Your task to perform on an android device: find which apps use the phone's location Image 0: 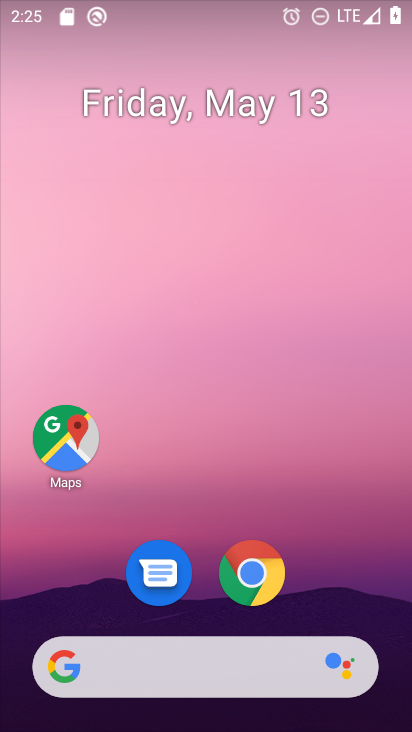
Step 0: drag from (178, 722) to (207, 16)
Your task to perform on an android device: find which apps use the phone's location Image 1: 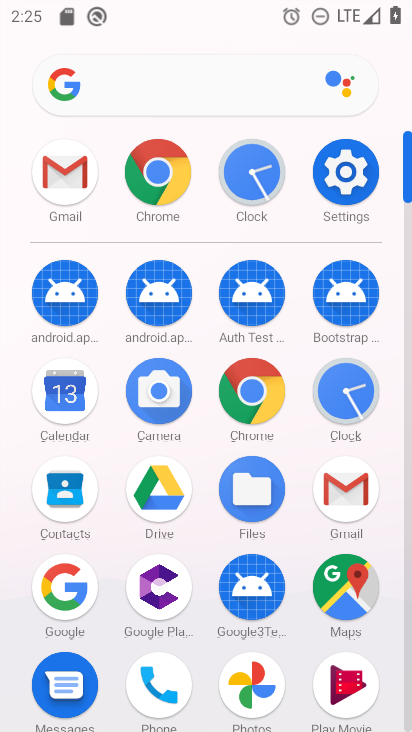
Step 1: click (348, 169)
Your task to perform on an android device: find which apps use the phone's location Image 2: 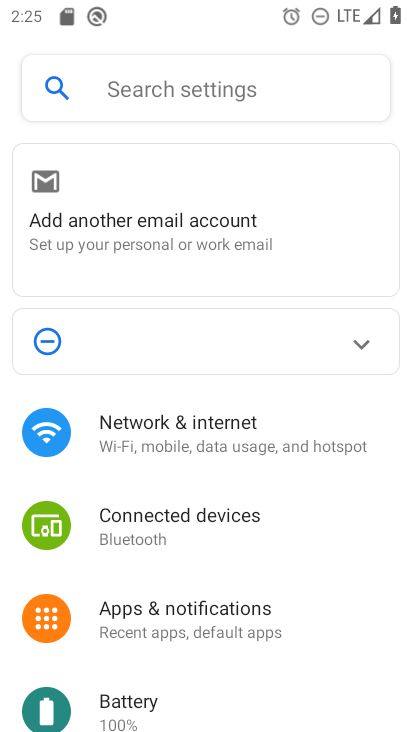
Step 2: drag from (192, 669) to (210, 57)
Your task to perform on an android device: find which apps use the phone's location Image 3: 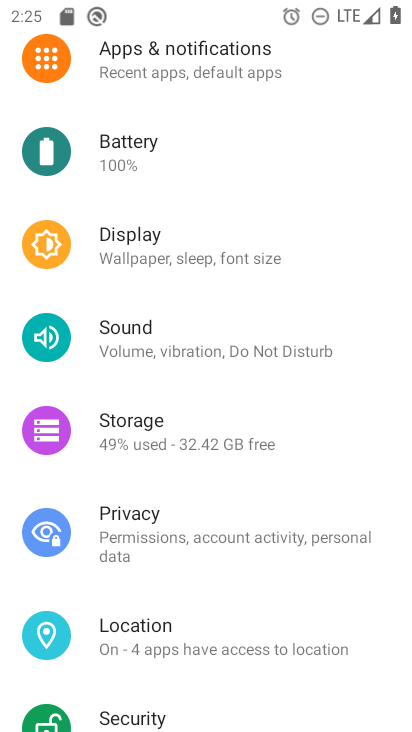
Step 3: drag from (257, 633) to (207, 65)
Your task to perform on an android device: find which apps use the phone's location Image 4: 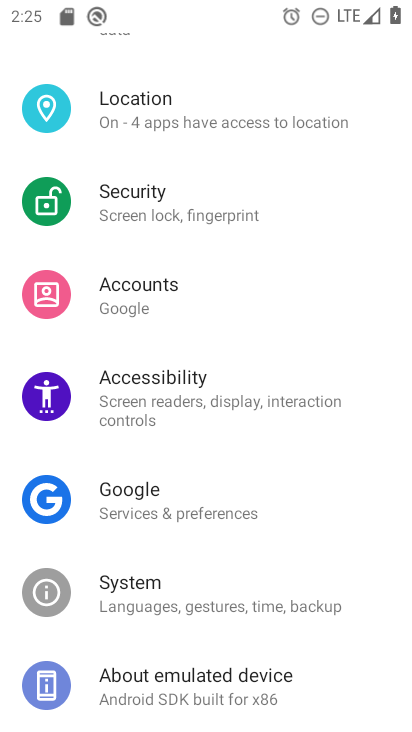
Step 4: click (277, 130)
Your task to perform on an android device: find which apps use the phone's location Image 5: 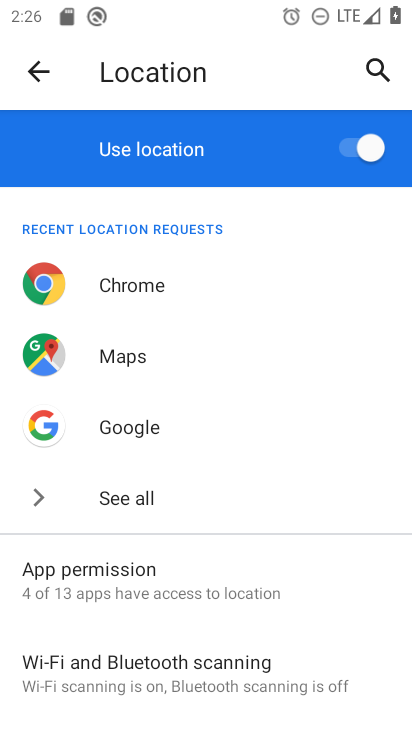
Step 5: task complete